Your task to perform on an android device: turn off notifications in google photos Image 0: 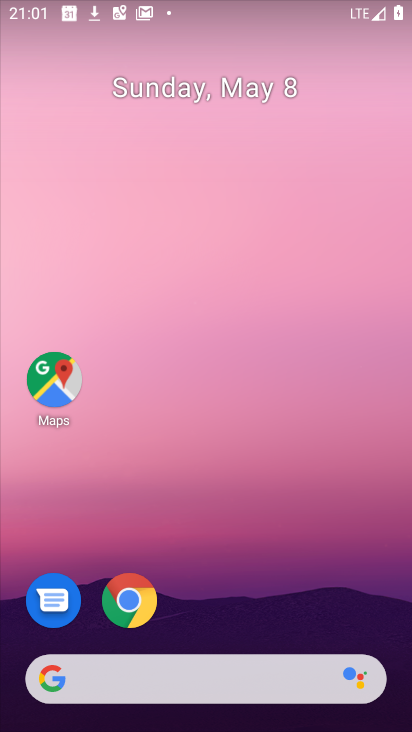
Step 0: drag from (261, 711) to (272, 205)
Your task to perform on an android device: turn off notifications in google photos Image 1: 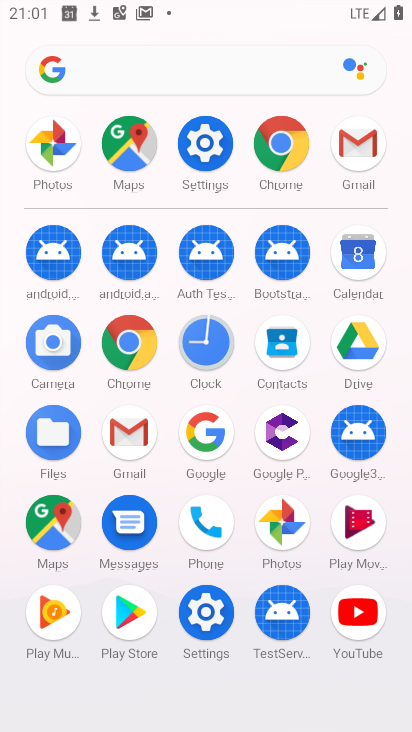
Step 1: click (273, 517)
Your task to perform on an android device: turn off notifications in google photos Image 2: 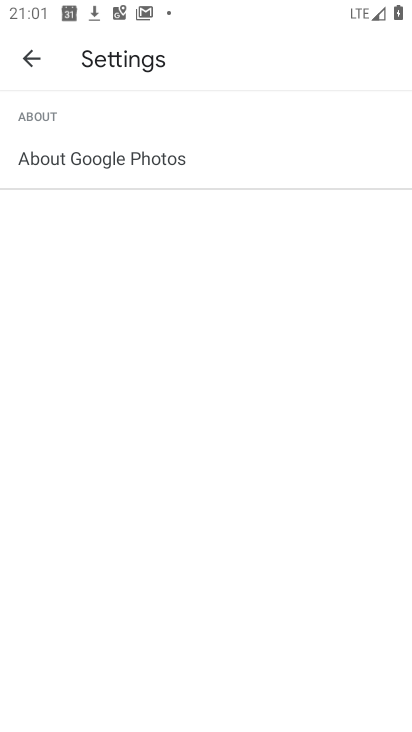
Step 2: click (35, 66)
Your task to perform on an android device: turn off notifications in google photos Image 3: 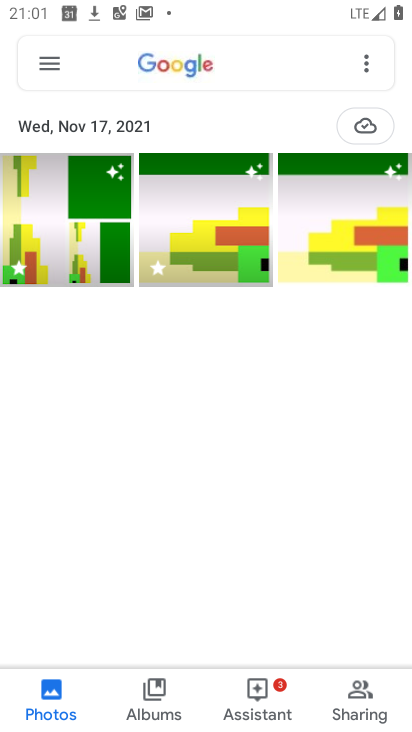
Step 3: click (61, 57)
Your task to perform on an android device: turn off notifications in google photos Image 4: 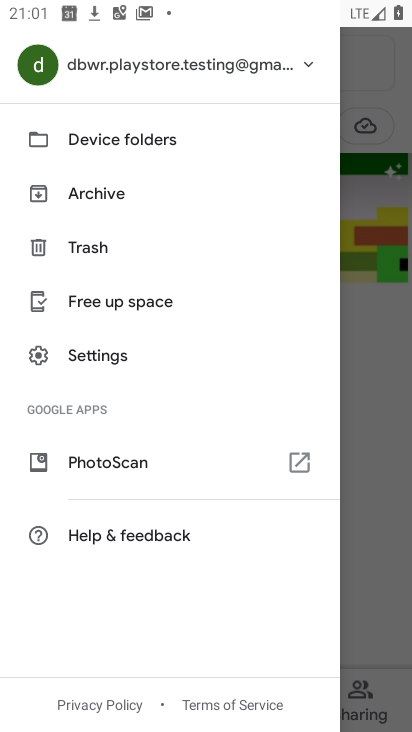
Step 4: click (95, 358)
Your task to perform on an android device: turn off notifications in google photos Image 5: 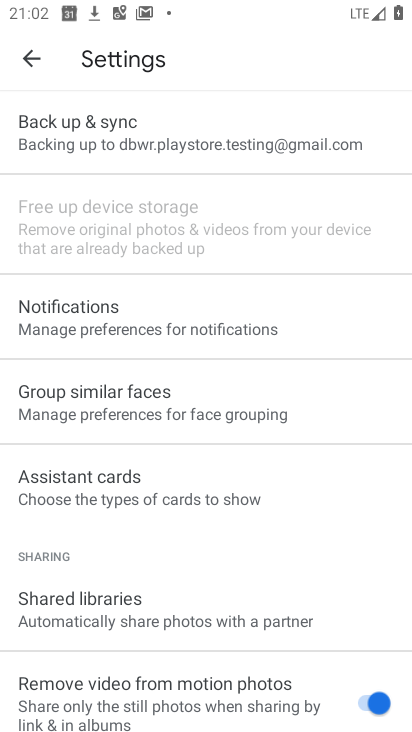
Step 5: click (176, 330)
Your task to perform on an android device: turn off notifications in google photos Image 6: 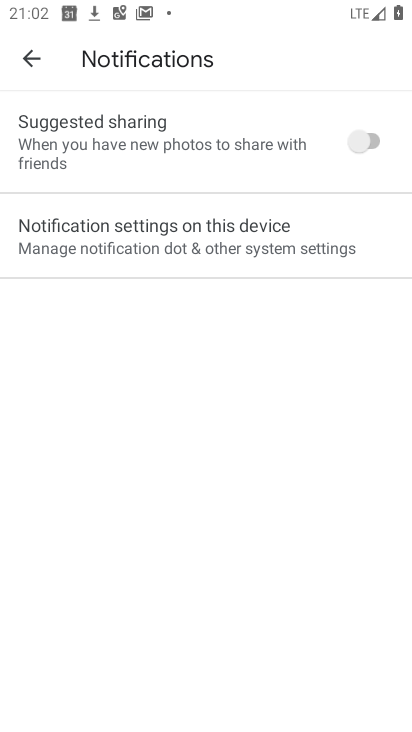
Step 6: click (165, 225)
Your task to perform on an android device: turn off notifications in google photos Image 7: 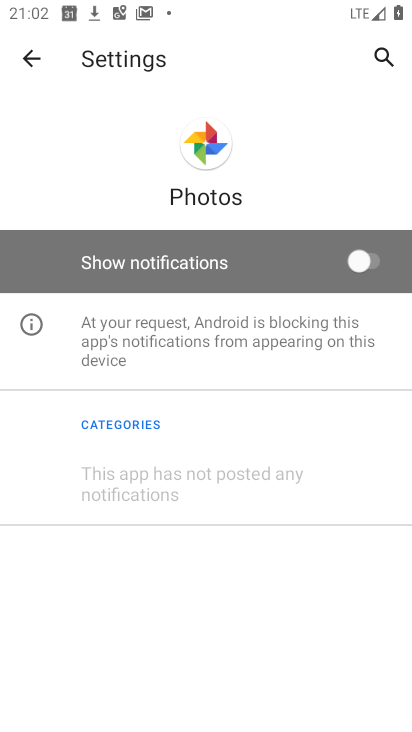
Step 7: click (343, 259)
Your task to perform on an android device: turn off notifications in google photos Image 8: 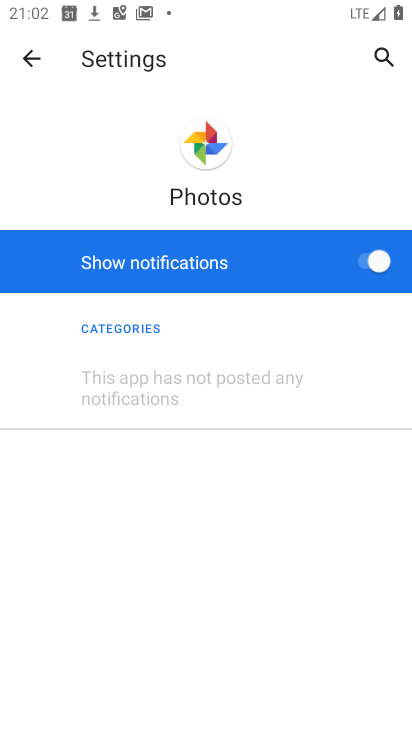
Step 8: click (342, 261)
Your task to perform on an android device: turn off notifications in google photos Image 9: 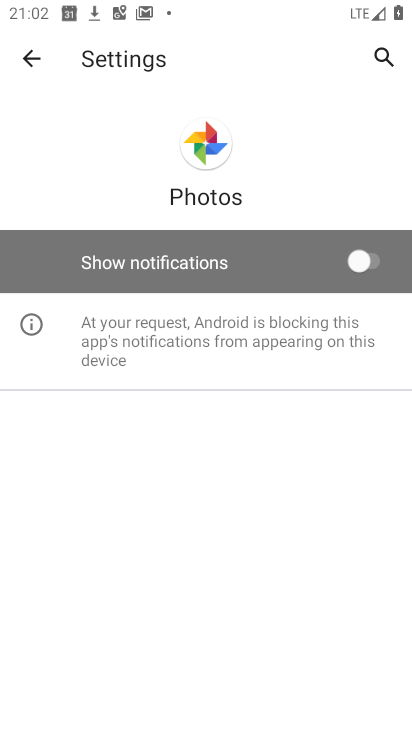
Step 9: task complete